Your task to perform on an android device: turn off location history Image 0: 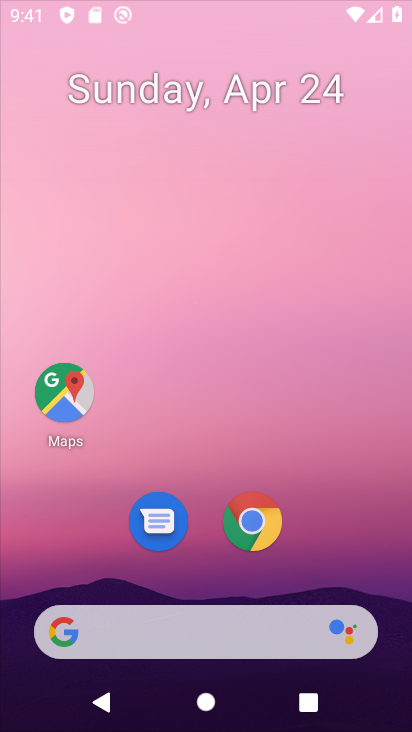
Step 0: drag from (98, 318) to (145, 476)
Your task to perform on an android device: turn off location history Image 1: 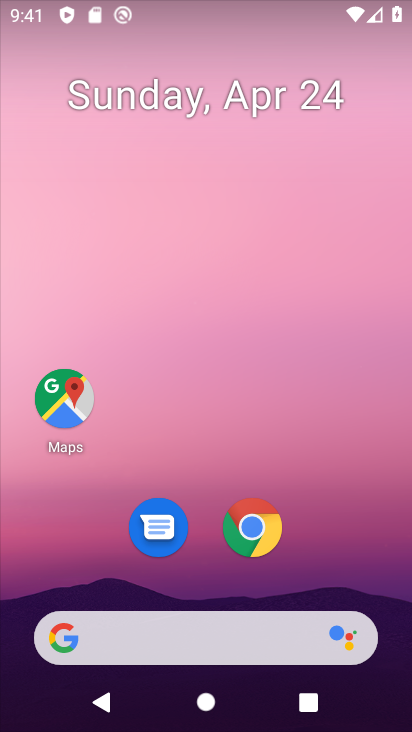
Step 1: drag from (94, 8) to (158, 275)
Your task to perform on an android device: turn off location history Image 2: 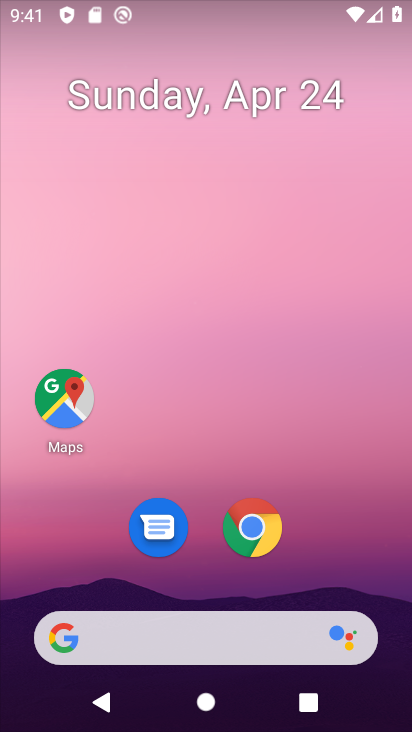
Step 2: drag from (111, 9) to (136, 496)
Your task to perform on an android device: turn off location history Image 3: 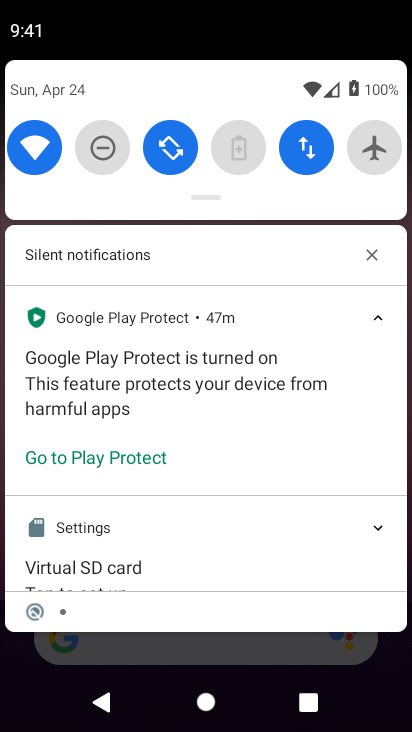
Step 3: drag from (205, 620) to (315, 131)
Your task to perform on an android device: turn off location history Image 4: 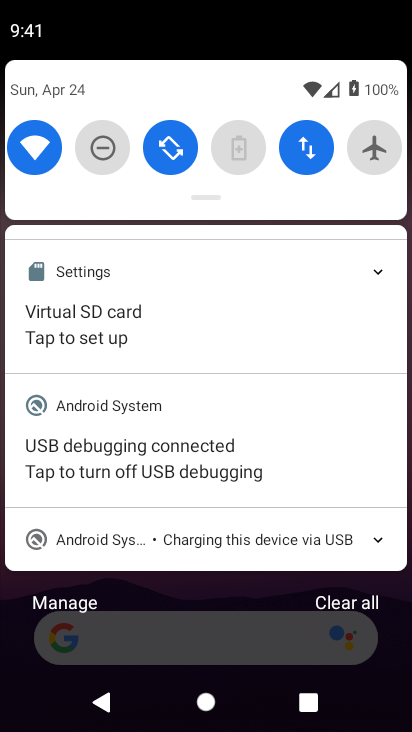
Step 4: click (166, 638)
Your task to perform on an android device: turn off location history Image 5: 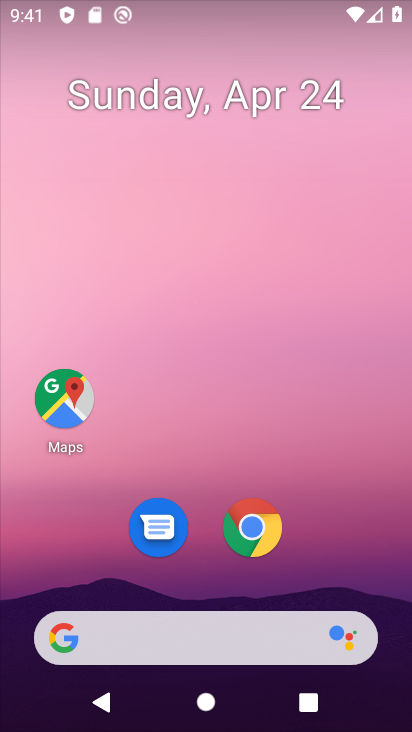
Step 5: drag from (183, 590) to (313, 89)
Your task to perform on an android device: turn off location history Image 6: 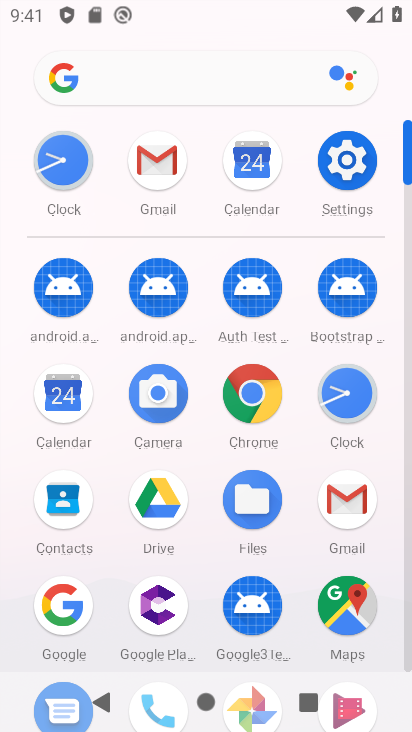
Step 6: click (351, 155)
Your task to perform on an android device: turn off location history Image 7: 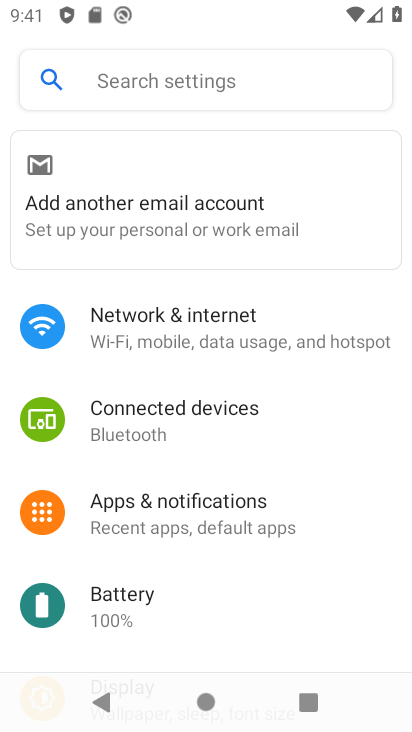
Step 7: drag from (170, 635) to (282, 123)
Your task to perform on an android device: turn off location history Image 8: 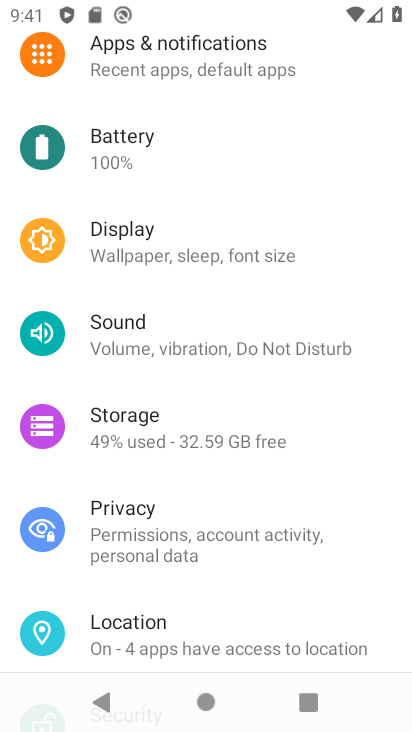
Step 8: click (132, 651)
Your task to perform on an android device: turn off location history Image 9: 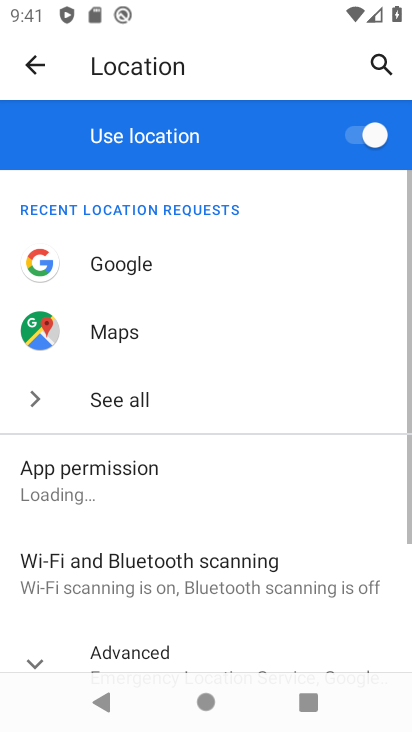
Step 9: drag from (205, 492) to (307, 86)
Your task to perform on an android device: turn off location history Image 10: 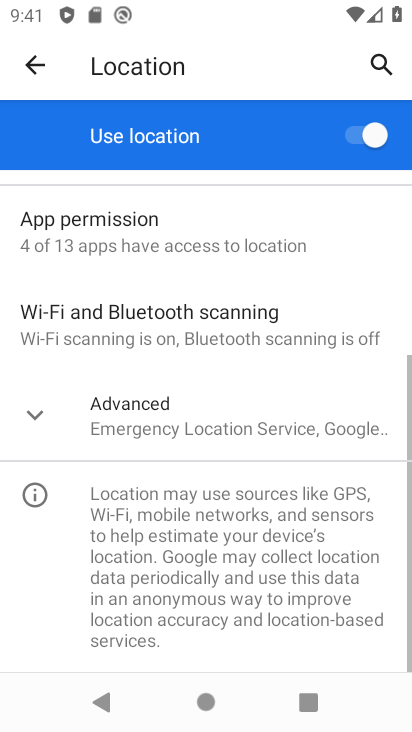
Step 10: click (206, 419)
Your task to perform on an android device: turn off location history Image 11: 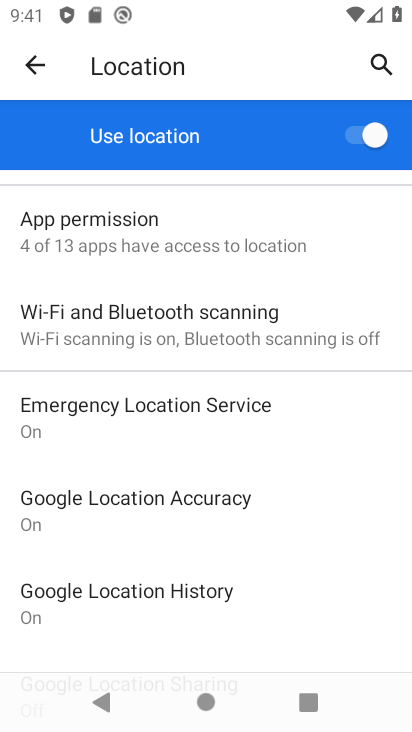
Step 11: click (108, 610)
Your task to perform on an android device: turn off location history Image 12: 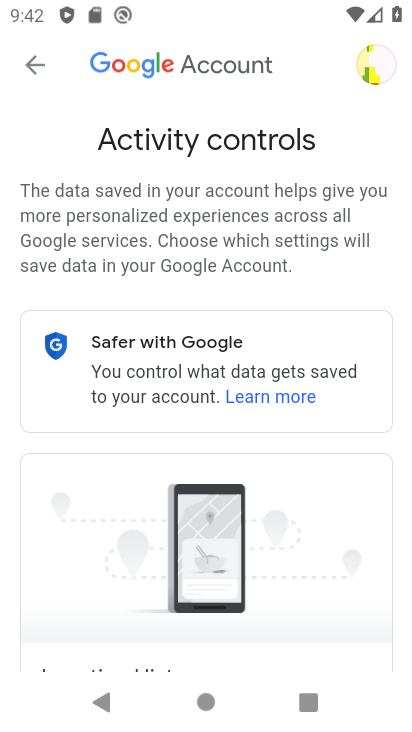
Step 12: task complete